Your task to perform on an android device: clear history in the chrome app Image 0: 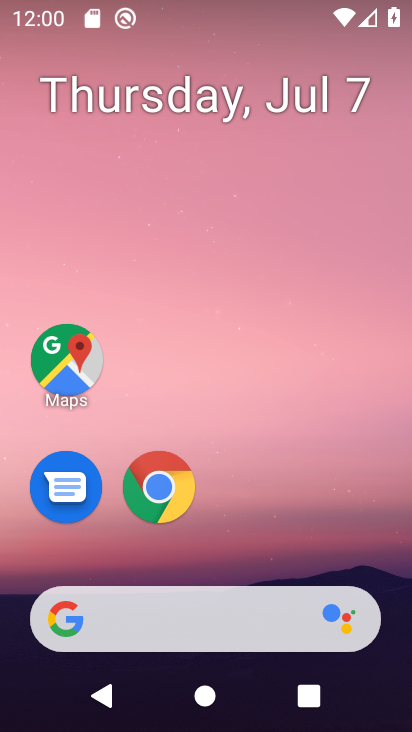
Step 0: drag from (354, 507) to (366, 81)
Your task to perform on an android device: clear history in the chrome app Image 1: 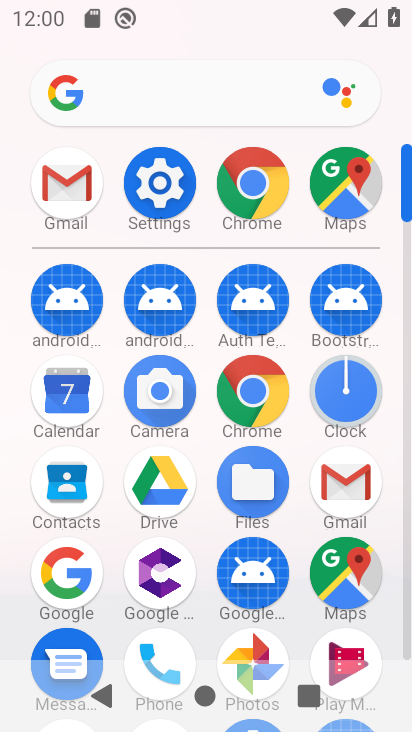
Step 1: click (265, 392)
Your task to perform on an android device: clear history in the chrome app Image 2: 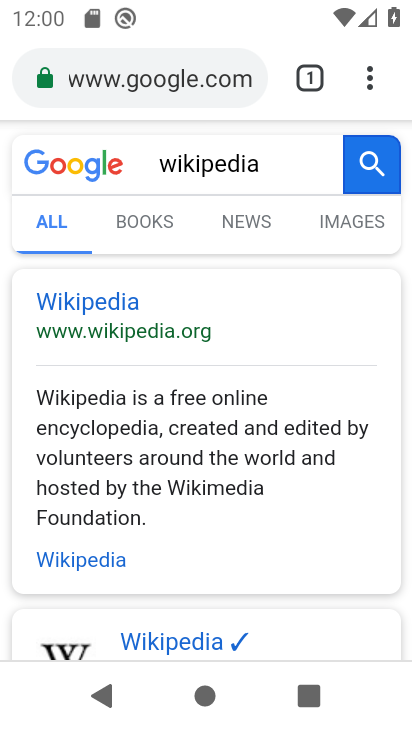
Step 2: click (368, 87)
Your task to perform on an android device: clear history in the chrome app Image 3: 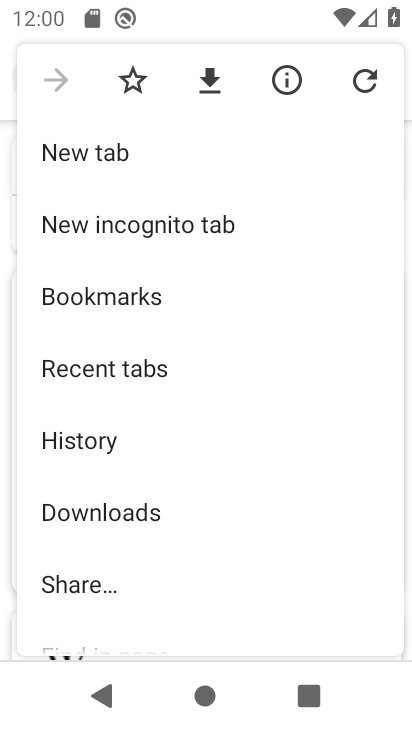
Step 3: drag from (322, 509) to (331, 343)
Your task to perform on an android device: clear history in the chrome app Image 4: 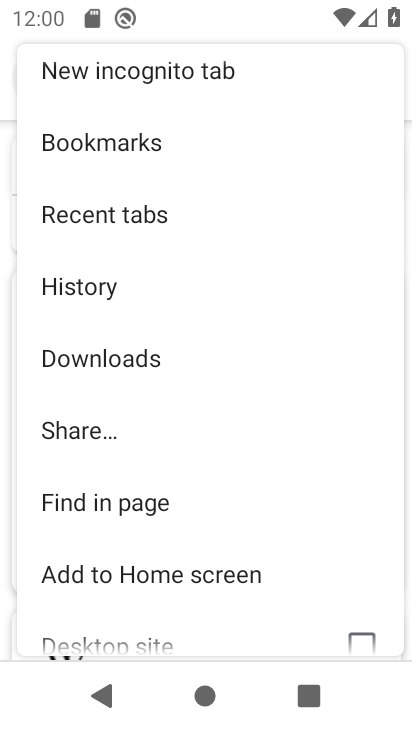
Step 4: drag from (340, 534) to (335, 374)
Your task to perform on an android device: clear history in the chrome app Image 5: 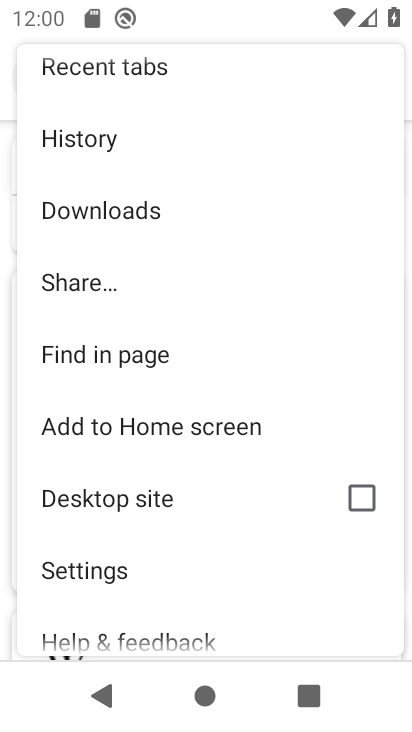
Step 5: drag from (312, 573) to (293, 367)
Your task to perform on an android device: clear history in the chrome app Image 6: 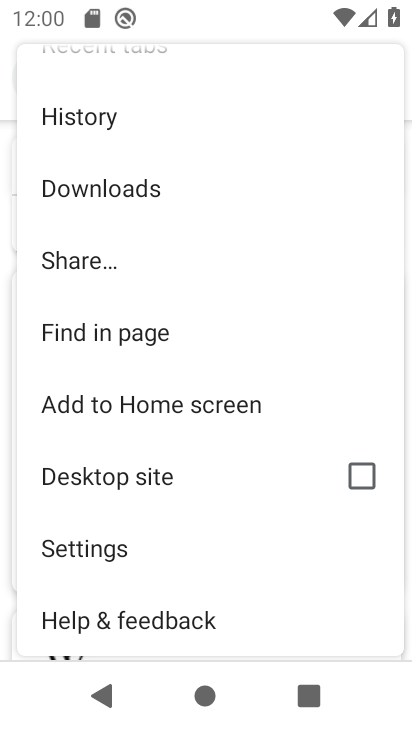
Step 6: drag from (314, 241) to (289, 470)
Your task to perform on an android device: clear history in the chrome app Image 7: 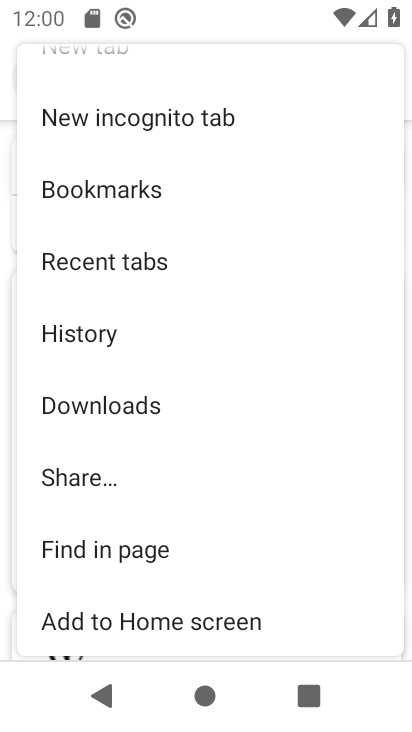
Step 7: drag from (249, 249) to (245, 437)
Your task to perform on an android device: clear history in the chrome app Image 8: 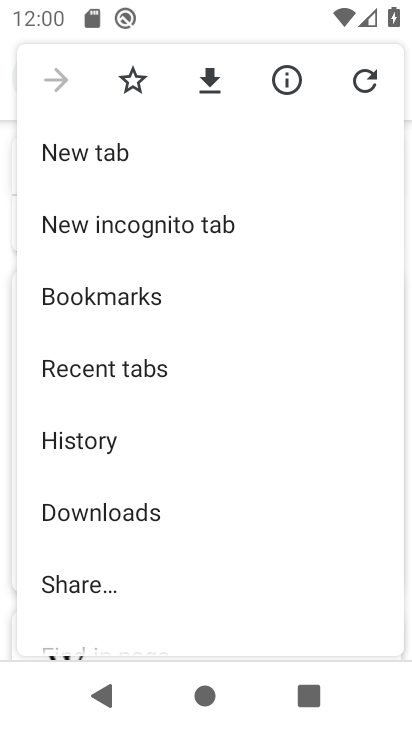
Step 8: click (125, 449)
Your task to perform on an android device: clear history in the chrome app Image 9: 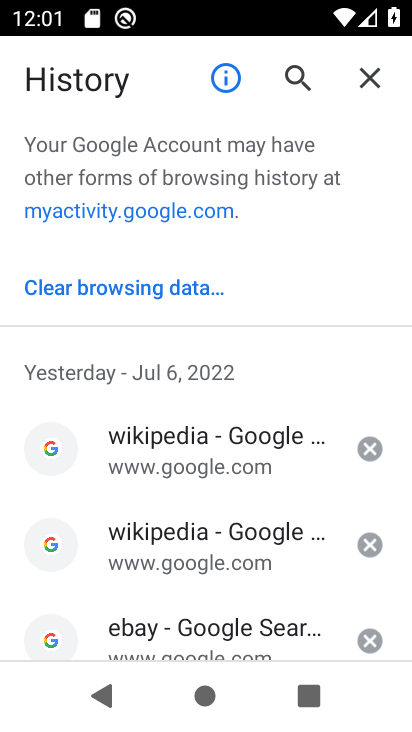
Step 9: click (214, 289)
Your task to perform on an android device: clear history in the chrome app Image 10: 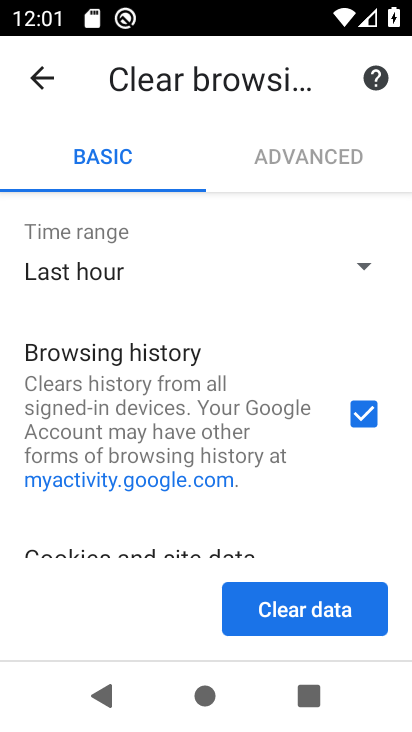
Step 10: click (301, 609)
Your task to perform on an android device: clear history in the chrome app Image 11: 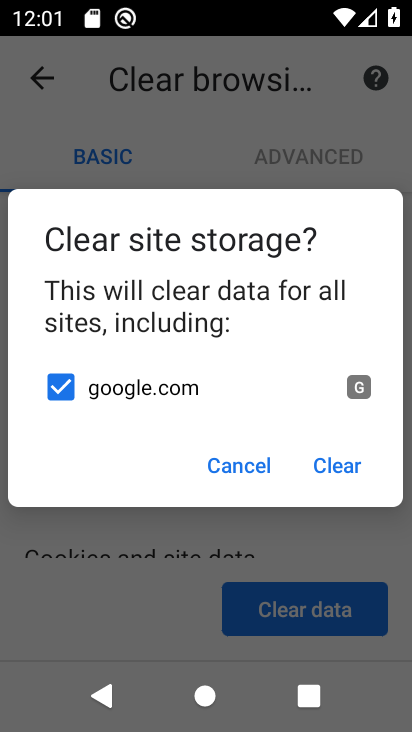
Step 11: click (348, 463)
Your task to perform on an android device: clear history in the chrome app Image 12: 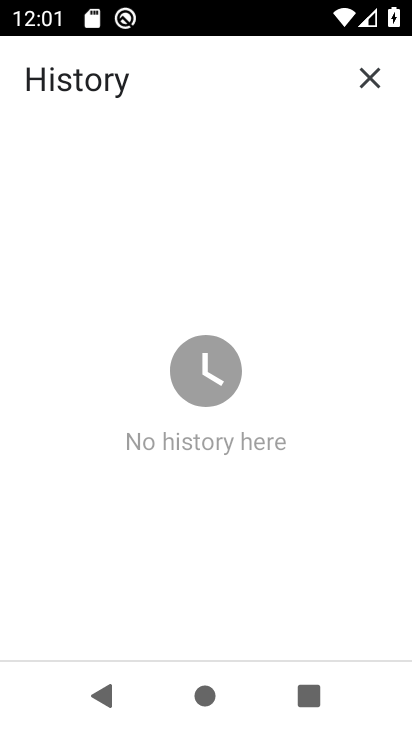
Step 12: task complete